Your task to perform on an android device: Go to settings Image 0: 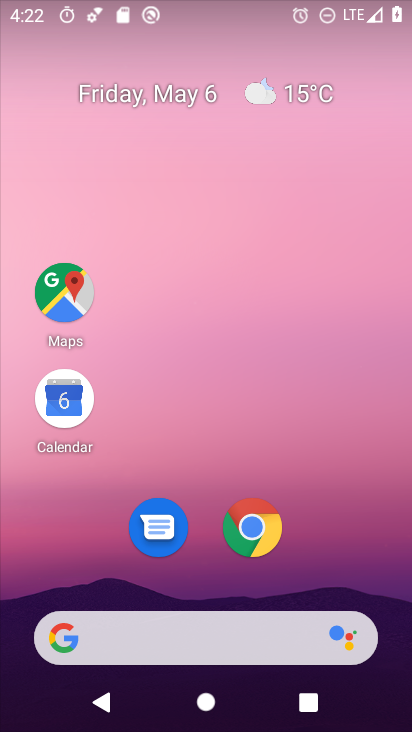
Step 0: drag from (316, 538) to (318, 42)
Your task to perform on an android device: Go to settings Image 1: 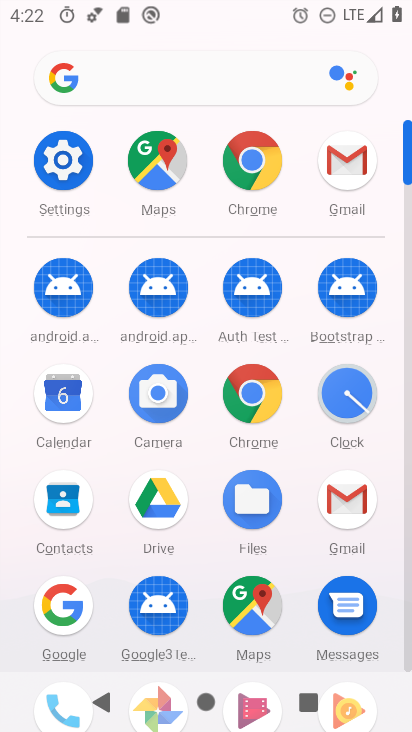
Step 1: click (68, 160)
Your task to perform on an android device: Go to settings Image 2: 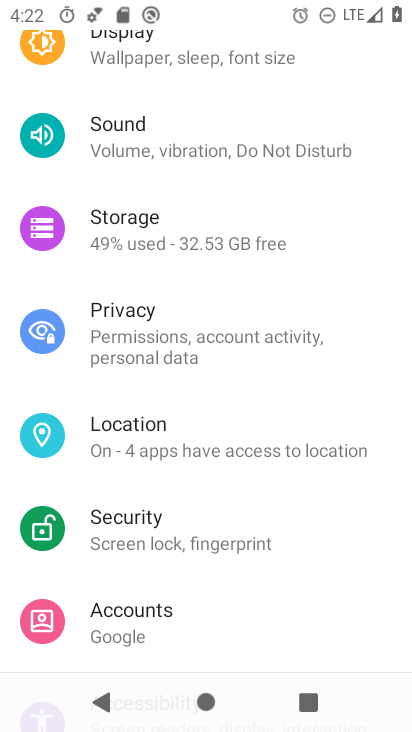
Step 2: task complete